Your task to perform on an android device: Open the calendar and show me this week's events? Image 0: 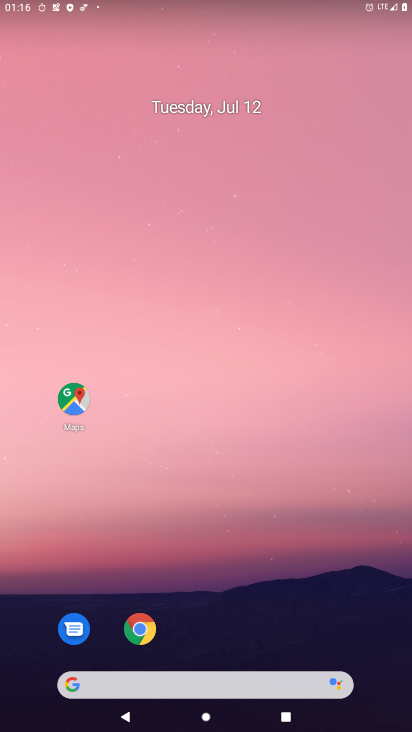
Step 0: drag from (320, 56) to (409, 598)
Your task to perform on an android device: Open the calendar and show me this week's events? Image 1: 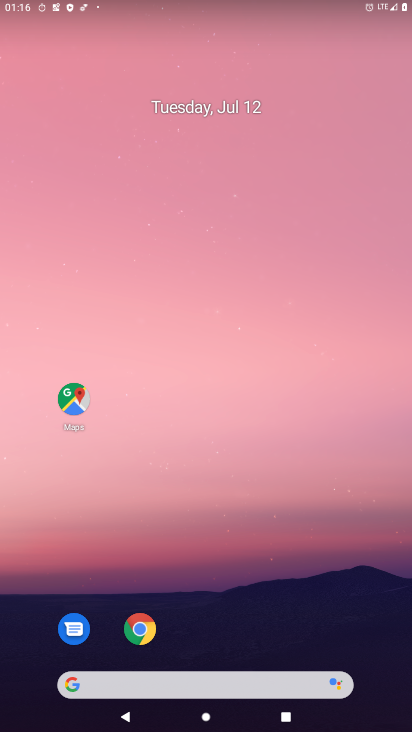
Step 1: drag from (43, 666) to (315, 10)
Your task to perform on an android device: Open the calendar and show me this week's events? Image 2: 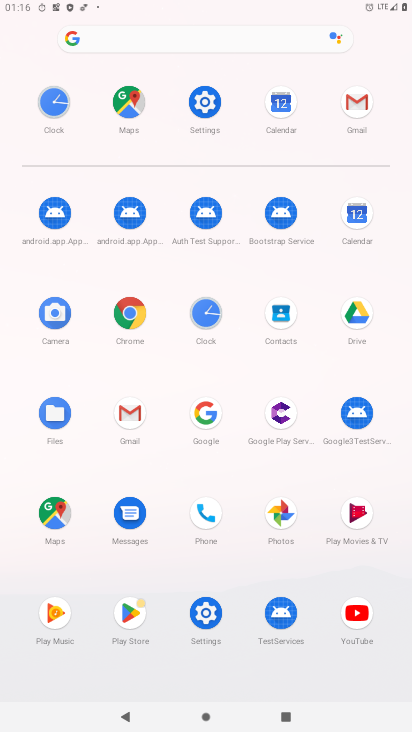
Step 2: click (353, 222)
Your task to perform on an android device: Open the calendar and show me this week's events? Image 3: 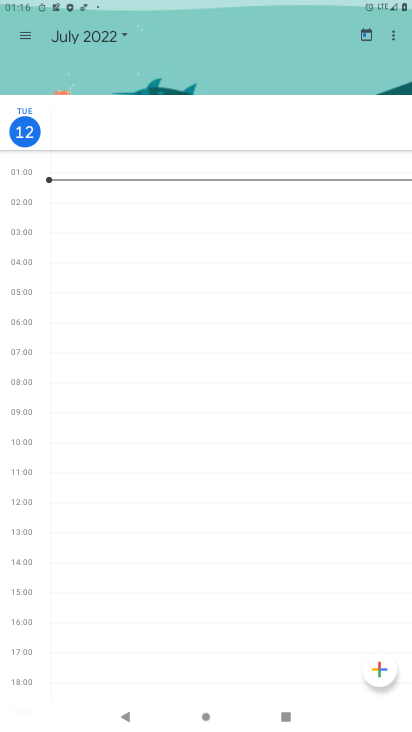
Step 3: click (22, 31)
Your task to perform on an android device: Open the calendar and show me this week's events? Image 4: 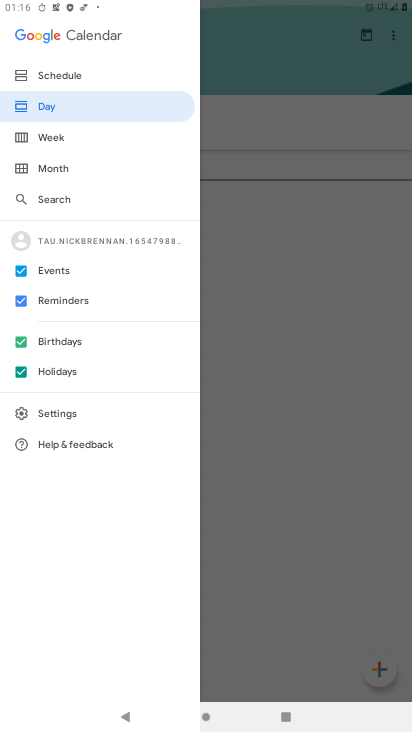
Step 4: click (73, 133)
Your task to perform on an android device: Open the calendar and show me this week's events? Image 5: 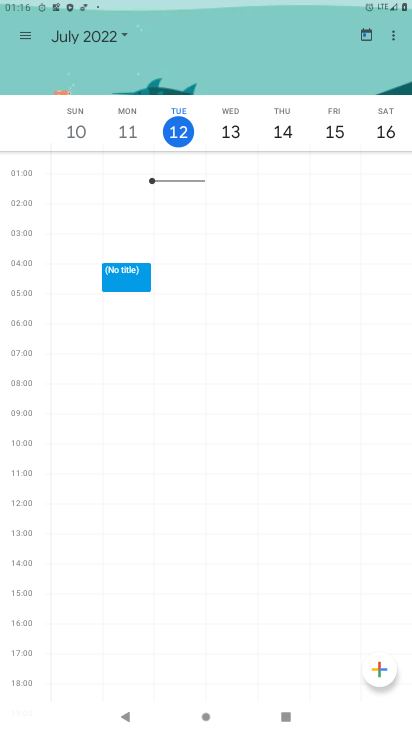
Step 5: task complete